Your task to perform on an android device: turn off javascript in the chrome app Image 0: 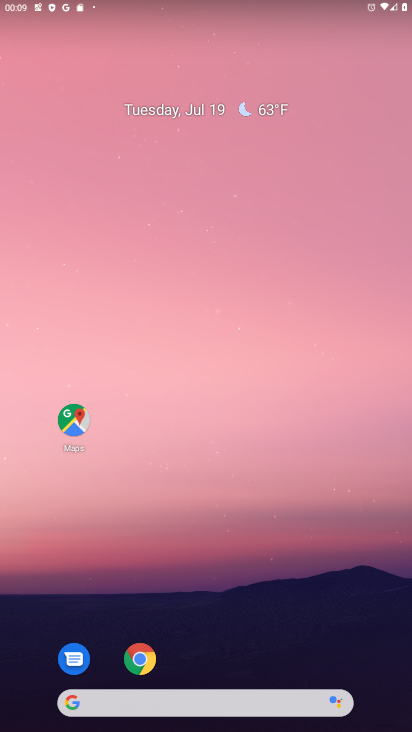
Step 0: press home button
Your task to perform on an android device: turn off javascript in the chrome app Image 1: 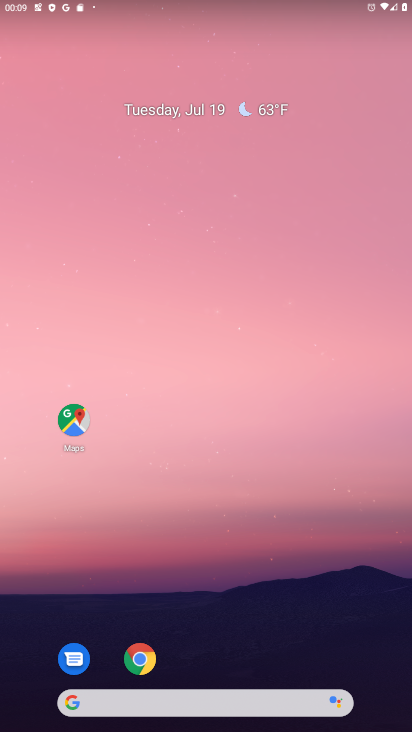
Step 1: drag from (352, 596) to (329, 309)
Your task to perform on an android device: turn off javascript in the chrome app Image 2: 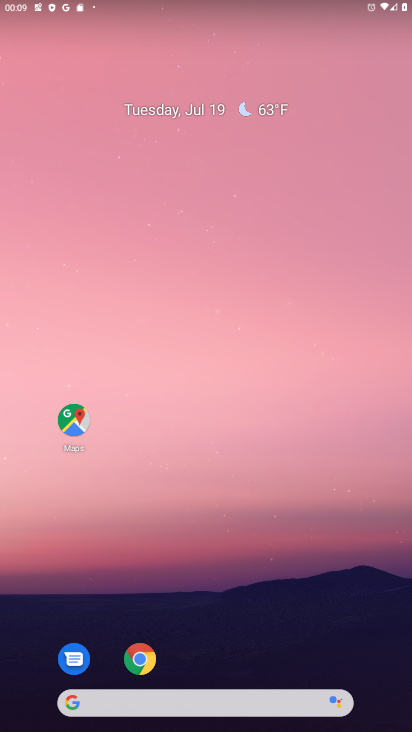
Step 2: drag from (277, 668) to (247, 314)
Your task to perform on an android device: turn off javascript in the chrome app Image 3: 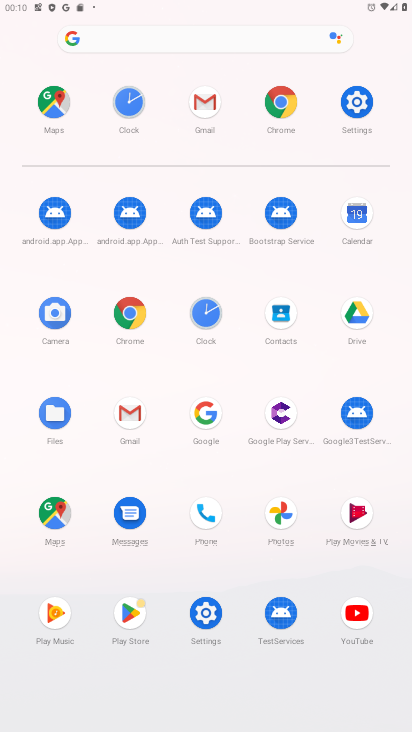
Step 3: click (286, 105)
Your task to perform on an android device: turn off javascript in the chrome app Image 4: 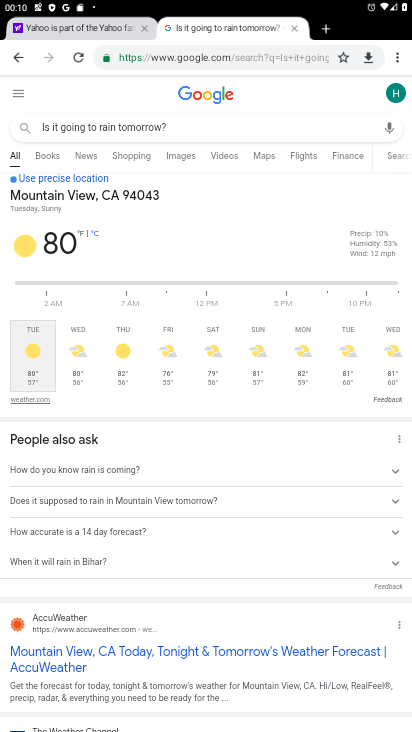
Step 4: drag from (396, 63) to (260, 389)
Your task to perform on an android device: turn off javascript in the chrome app Image 5: 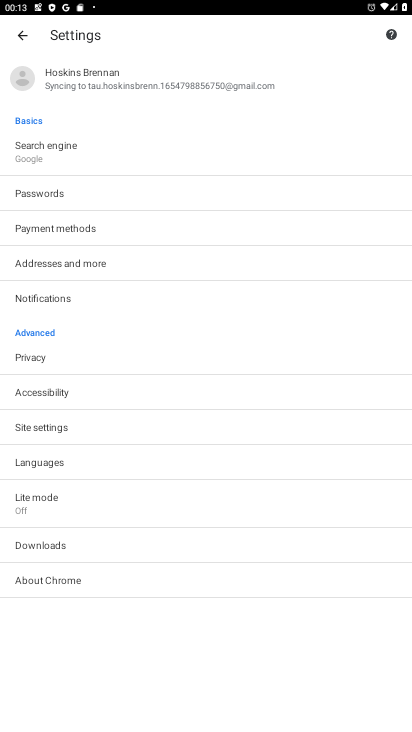
Step 5: click (42, 430)
Your task to perform on an android device: turn off javascript in the chrome app Image 6: 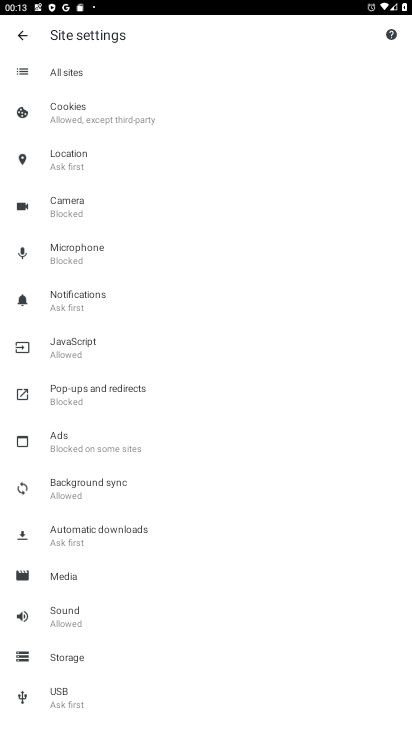
Step 6: click (53, 355)
Your task to perform on an android device: turn off javascript in the chrome app Image 7: 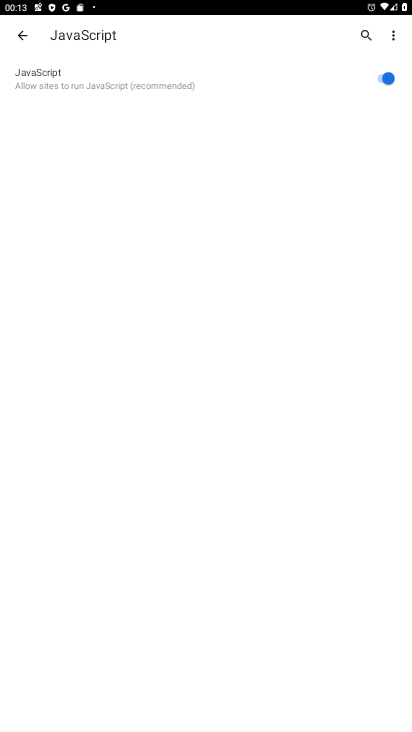
Step 7: click (226, 77)
Your task to perform on an android device: turn off javascript in the chrome app Image 8: 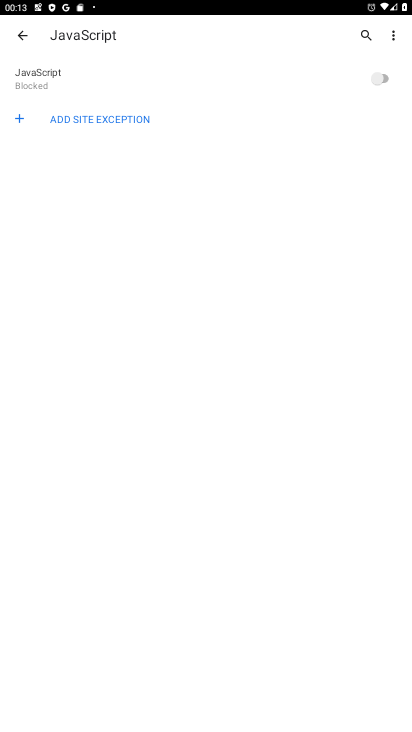
Step 8: task complete